Your task to perform on an android device: Show me productivity apps on the Play Store Image 0: 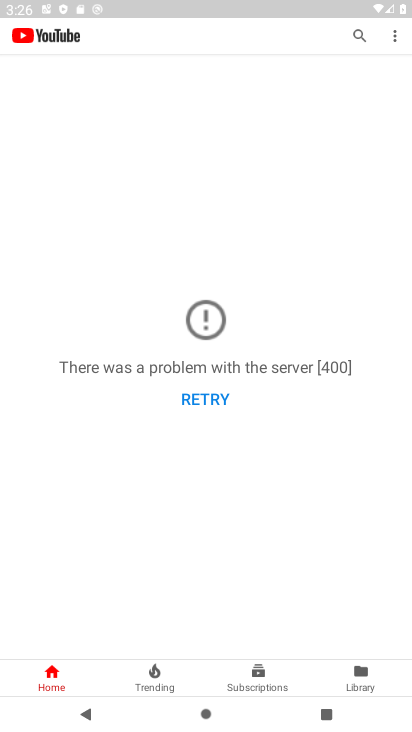
Step 0: press back button
Your task to perform on an android device: Show me productivity apps on the Play Store Image 1: 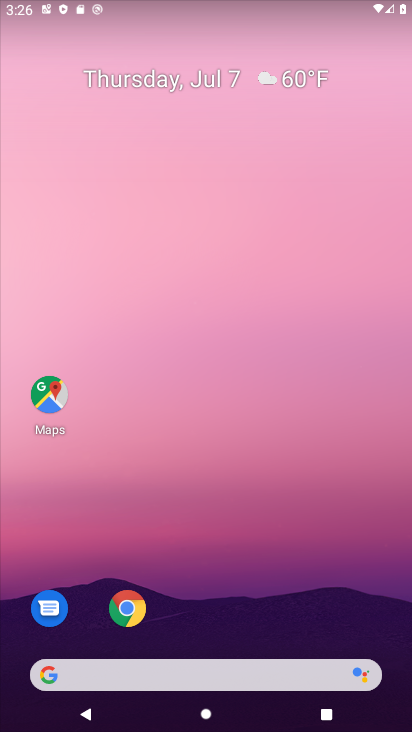
Step 1: drag from (178, 675) to (130, 183)
Your task to perform on an android device: Show me productivity apps on the Play Store Image 2: 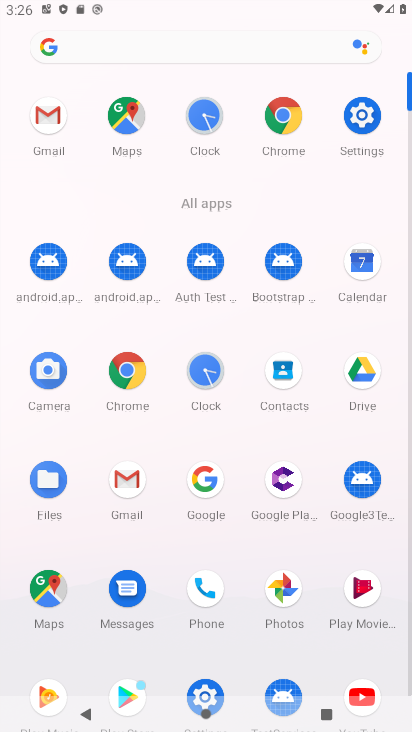
Step 2: click (127, 690)
Your task to perform on an android device: Show me productivity apps on the Play Store Image 3: 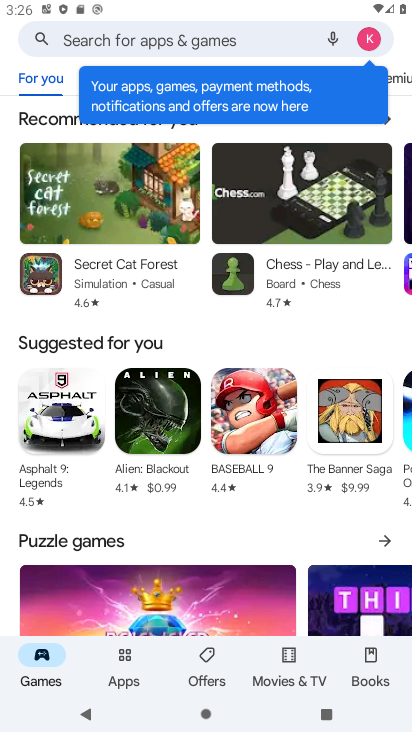
Step 3: click (132, 672)
Your task to perform on an android device: Show me productivity apps on the Play Store Image 4: 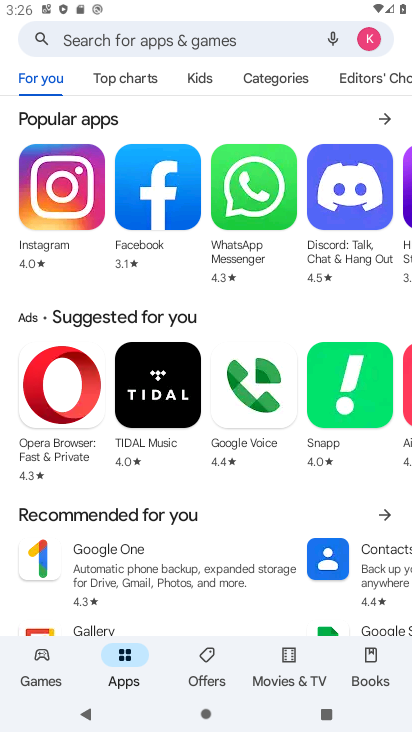
Step 4: click (286, 79)
Your task to perform on an android device: Show me productivity apps on the Play Store Image 5: 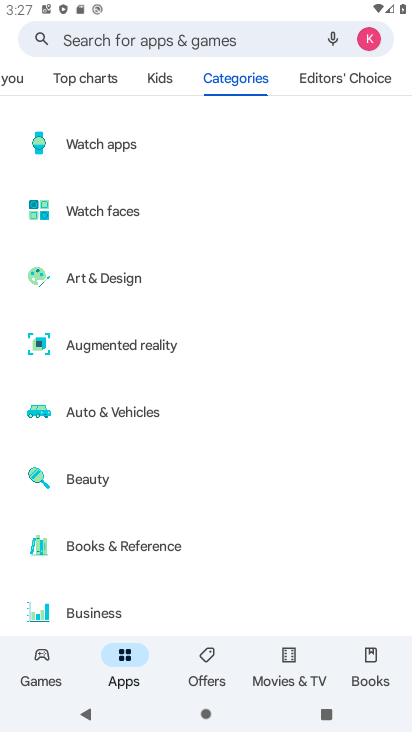
Step 5: drag from (205, 483) to (229, 41)
Your task to perform on an android device: Show me productivity apps on the Play Store Image 6: 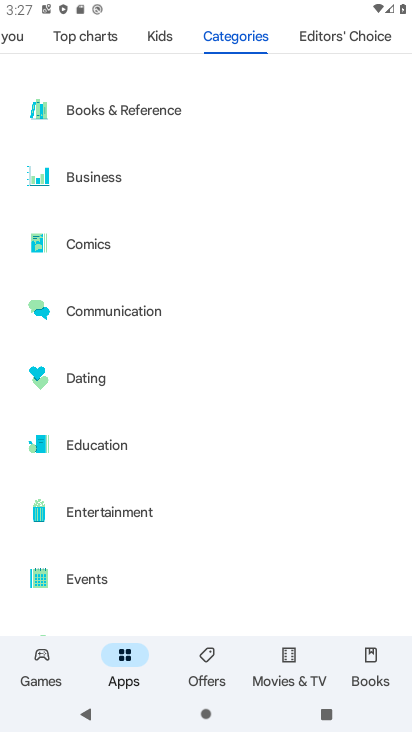
Step 6: drag from (206, 594) to (293, 72)
Your task to perform on an android device: Show me productivity apps on the Play Store Image 7: 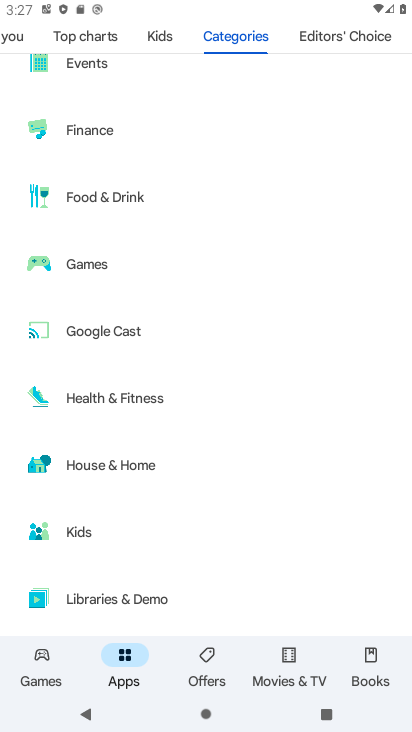
Step 7: drag from (212, 556) to (106, 8)
Your task to perform on an android device: Show me productivity apps on the Play Store Image 8: 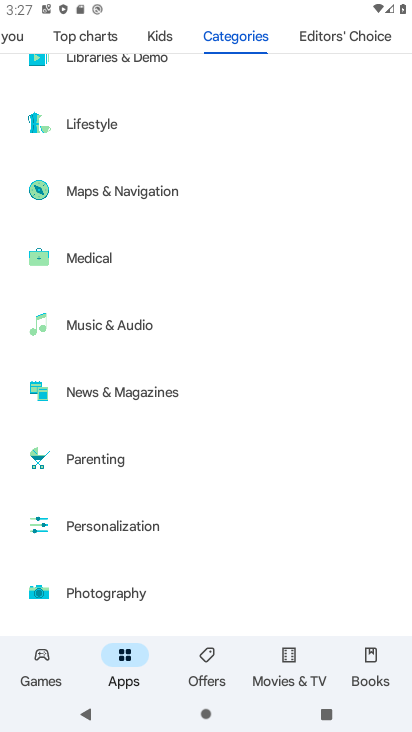
Step 8: drag from (137, 553) to (153, 102)
Your task to perform on an android device: Show me productivity apps on the Play Store Image 9: 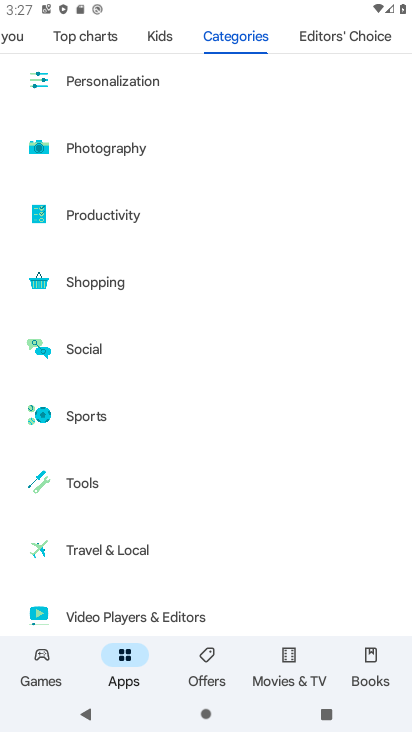
Step 9: click (51, 223)
Your task to perform on an android device: Show me productivity apps on the Play Store Image 10: 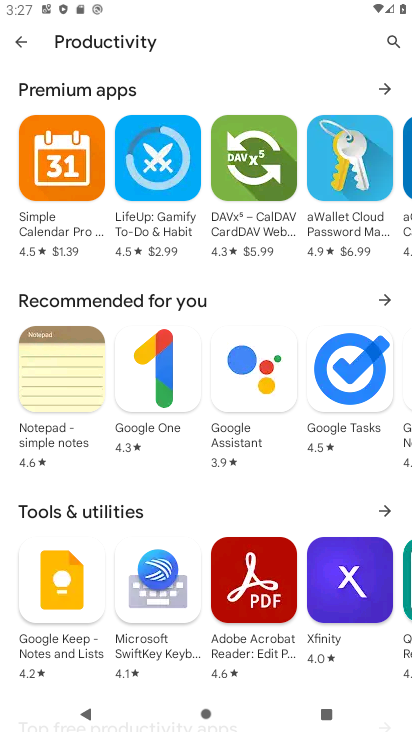
Step 10: task complete